Your task to perform on an android device: Go to display settings Image 0: 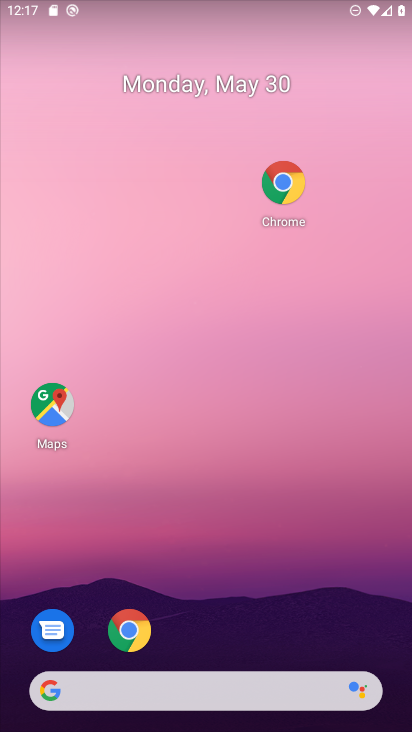
Step 0: drag from (301, 716) to (252, 181)
Your task to perform on an android device: Go to display settings Image 1: 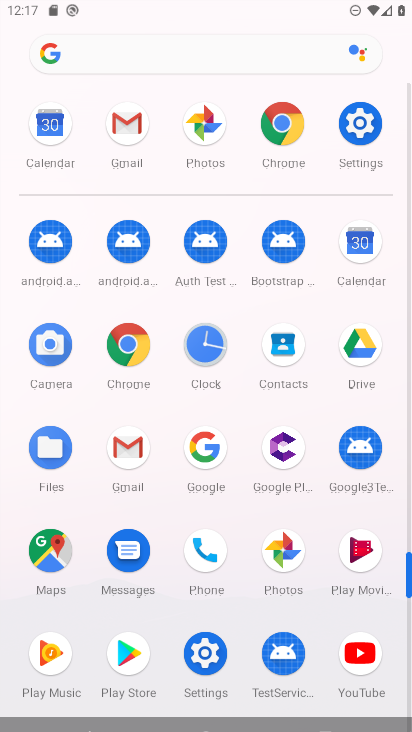
Step 1: click (352, 128)
Your task to perform on an android device: Go to display settings Image 2: 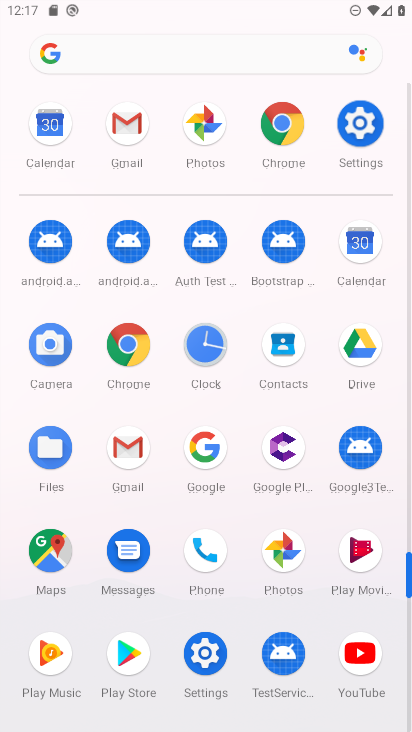
Step 2: click (352, 128)
Your task to perform on an android device: Go to display settings Image 3: 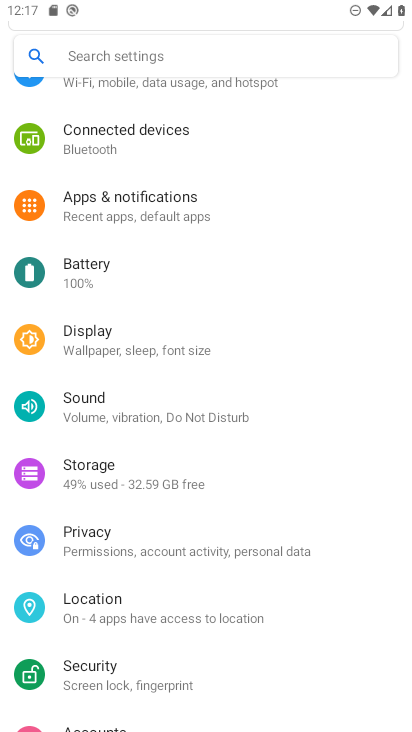
Step 3: click (88, 332)
Your task to perform on an android device: Go to display settings Image 4: 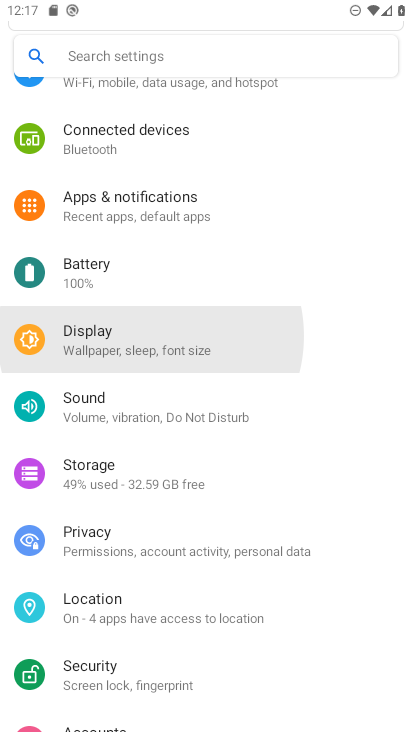
Step 4: click (87, 332)
Your task to perform on an android device: Go to display settings Image 5: 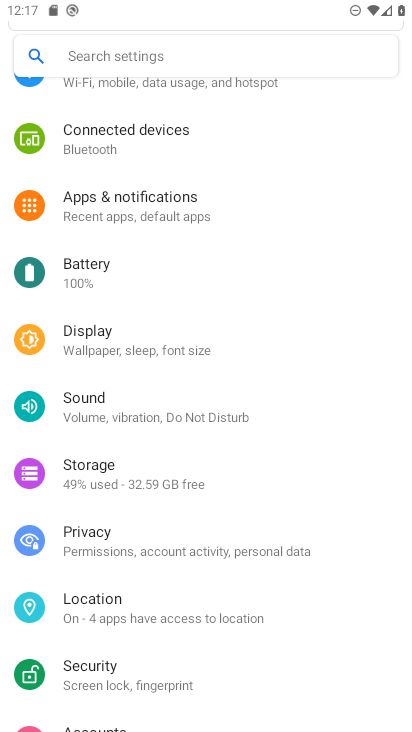
Step 5: click (87, 332)
Your task to perform on an android device: Go to display settings Image 6: 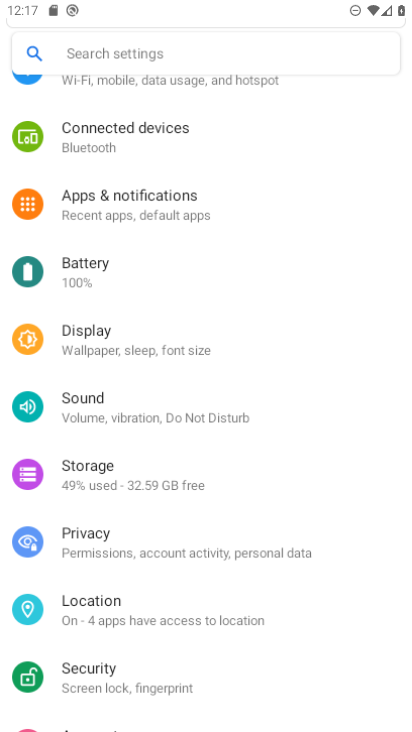
Step 6: click (87, 332)
Your task to perform on an android device: Go to display settings Image 7: 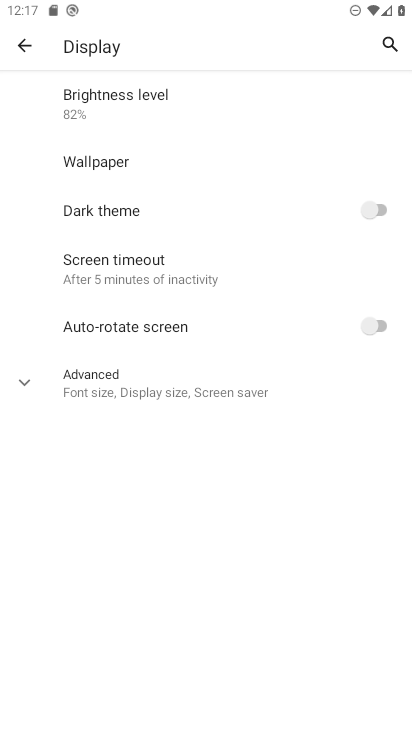
Step 7: task complete